Your task to perform on an android device: Go to Android settings Image 0: 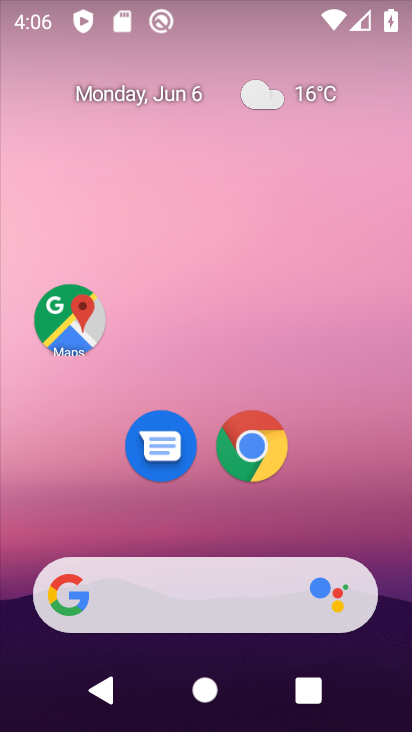
Step 0: drag from (221, 514) to (313, 66)
Your task to perform on an android device: Go to Android settings Image 1: 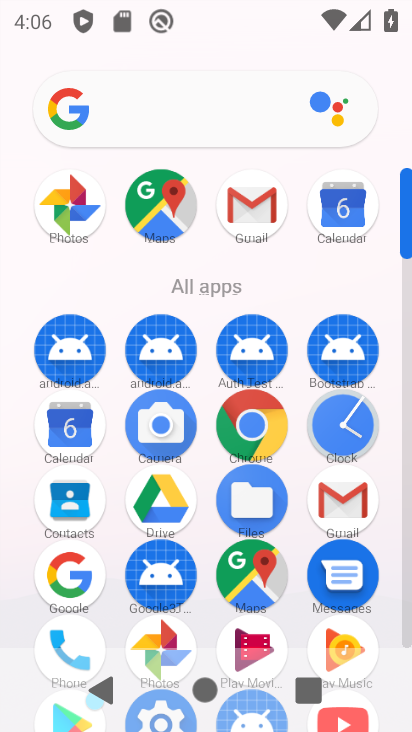
Step 1: drag from (192, 562) to (256, 291)
Your task to perform on an android device: Go to Android settings Image 2: 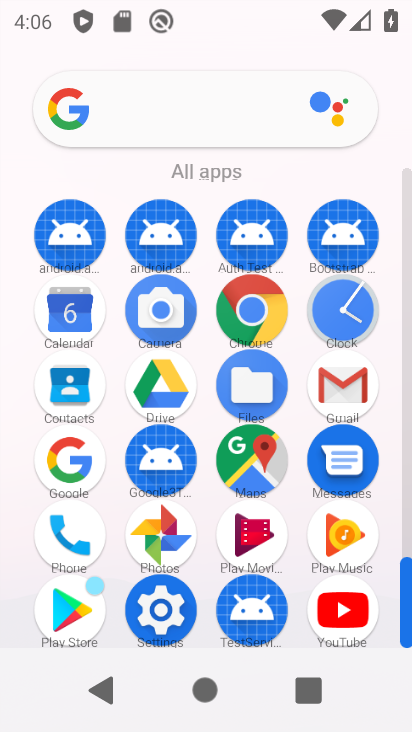
Step 2: click (156, 623)
Your task to perform on an android device: Go to Android settings Image 3: 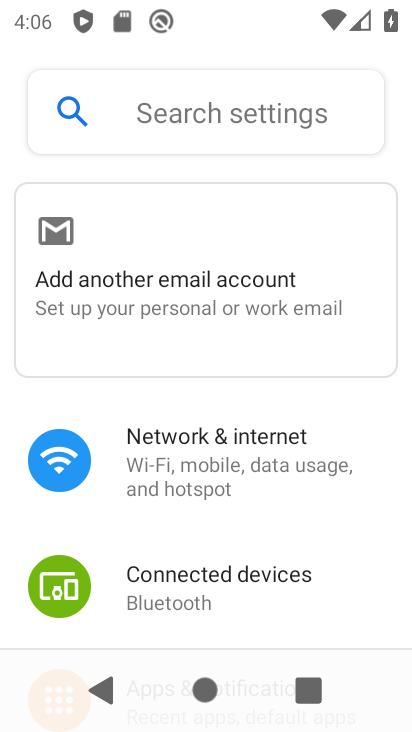
Step 3: task complete